Your task to perform on an android device: Do I have any events this weekend? Image 0: 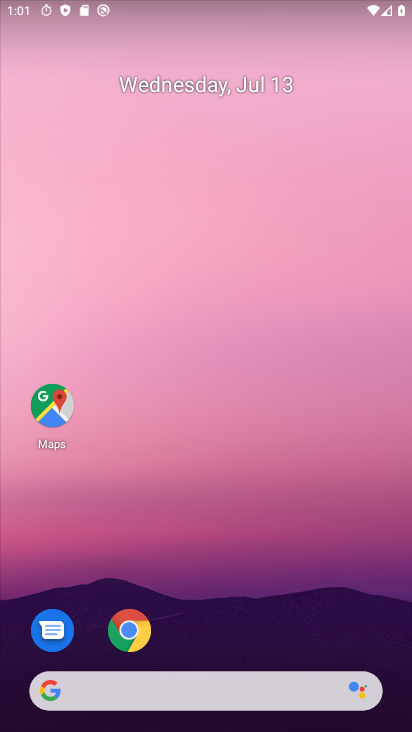
Step 0: drag from (281, 652) to (238, 94)
Your task to perform on an android device: Do I have any events this weekend? Image 1: 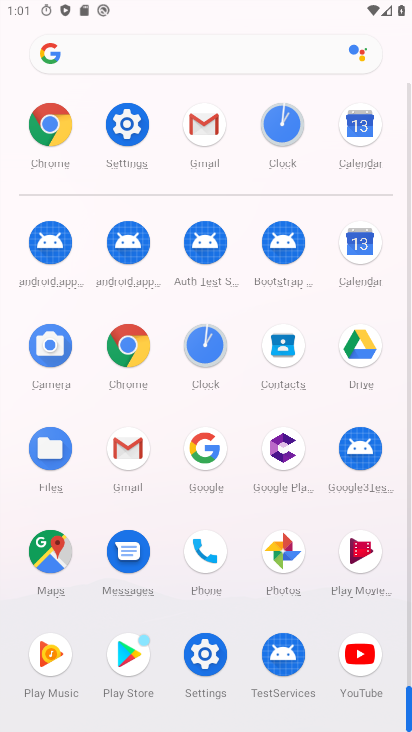
Step 1: click (341, 256)
Your task to perform on an android device: Do I have any events this weekend? Image 2: 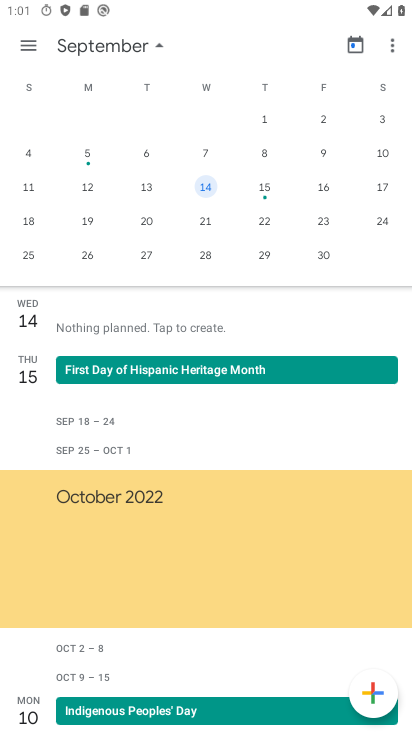
Step 2: click (262, 196)
Your task to perform on an android device: Do I have any events this weekend? Image 3: 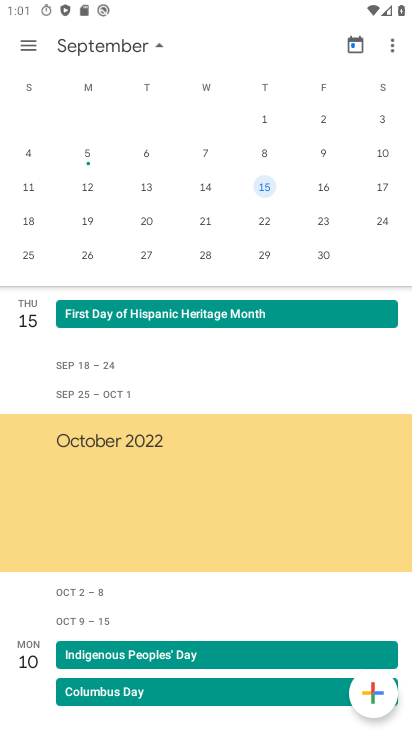
Step 3: task complete